Your task to perform on an android device: make emails show in primary in the gmail app Image 0: 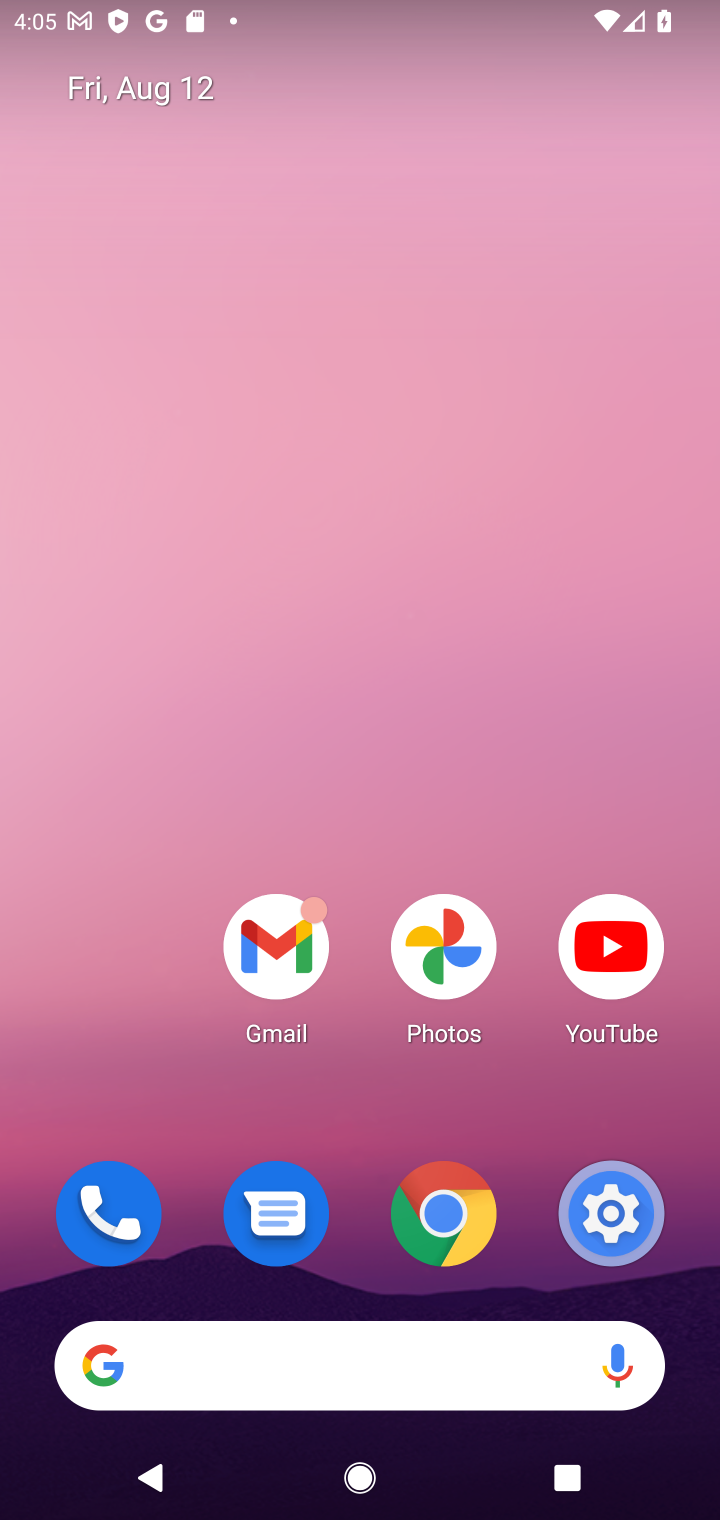
Step 0: drag from (375, 952) to (456, 187)
Your task to perform on an android device: make emails show in primary in the gmail app Image 1: 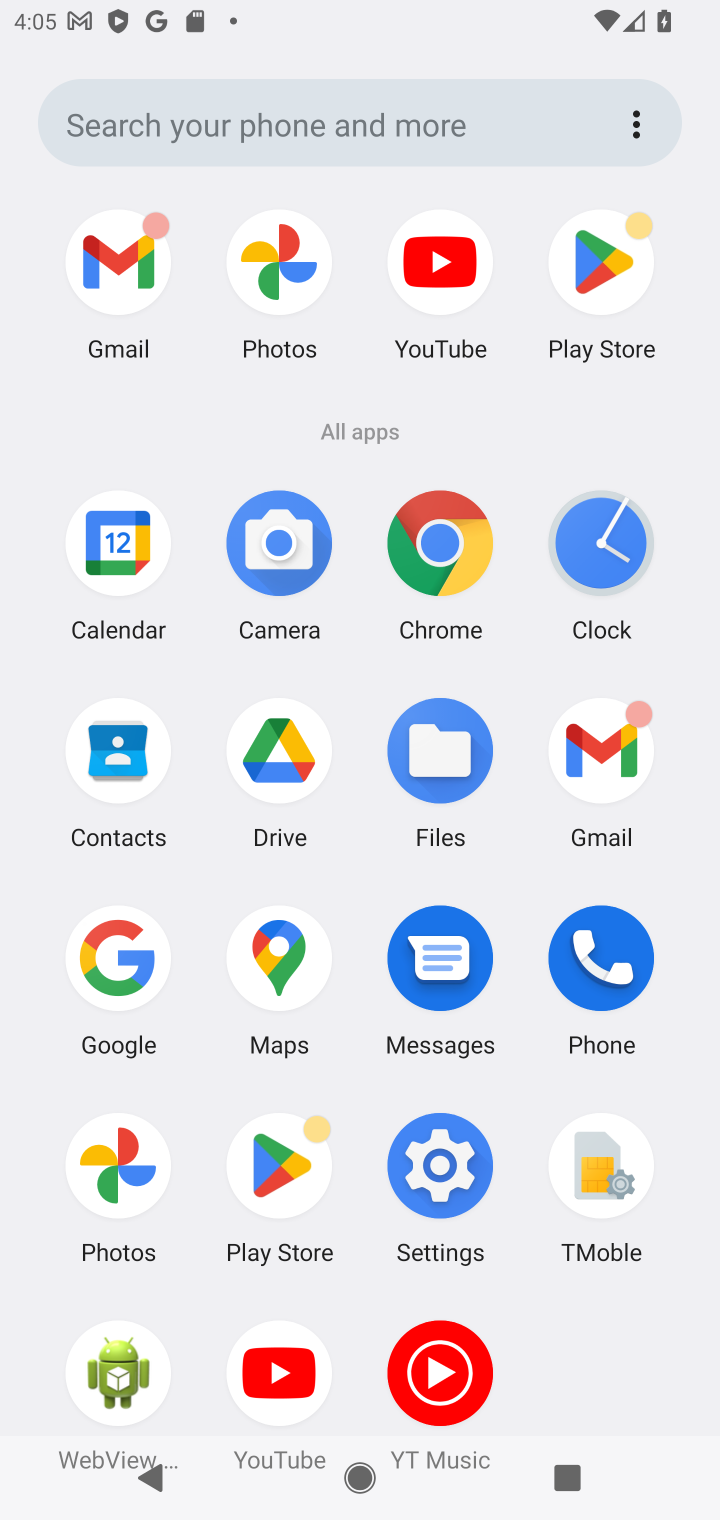
Step 1: click (604, 755)
Your task to perform on an android device: make emails show in primary in the gmail app Image 2: 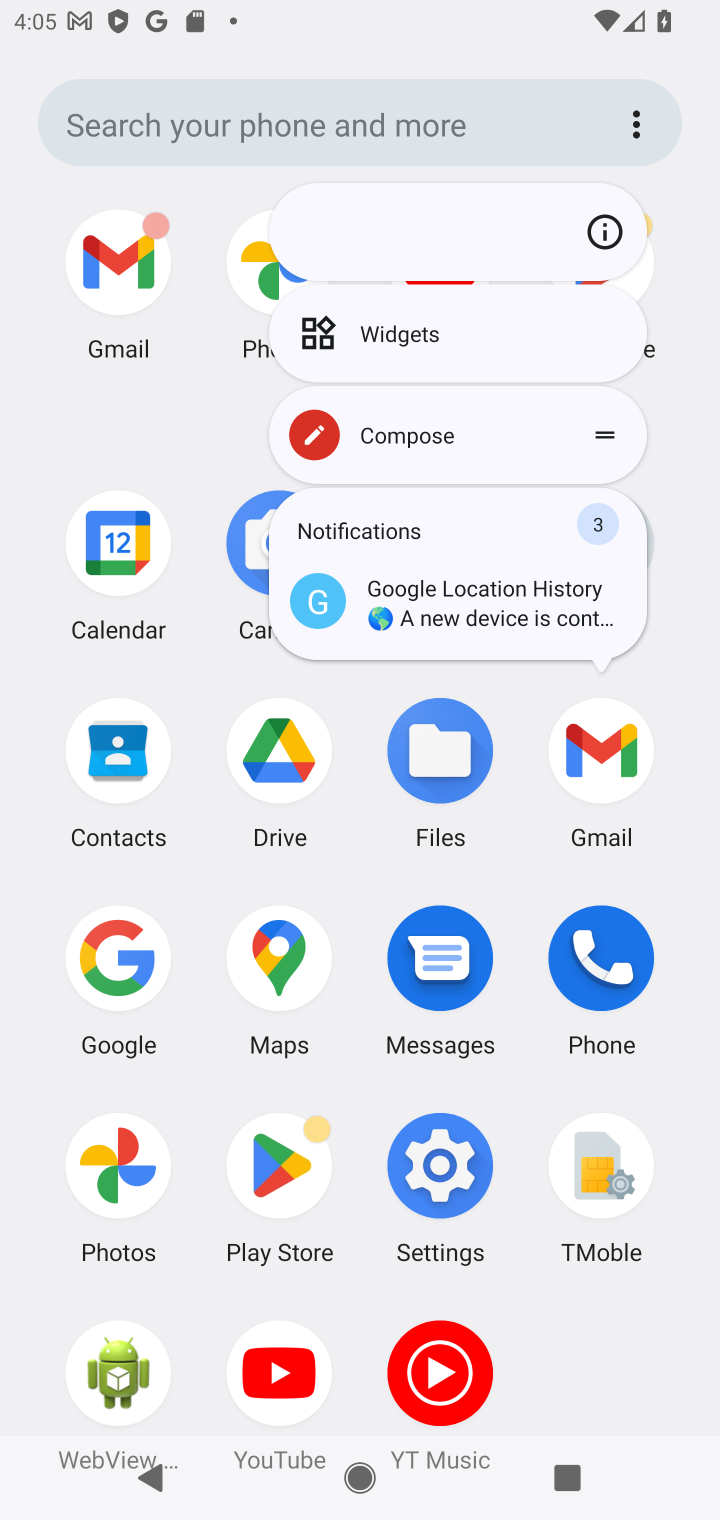
Step 2: click (584, 738)
Your task to perform on an android device: make emails show in primary in the gmail app Image 3: 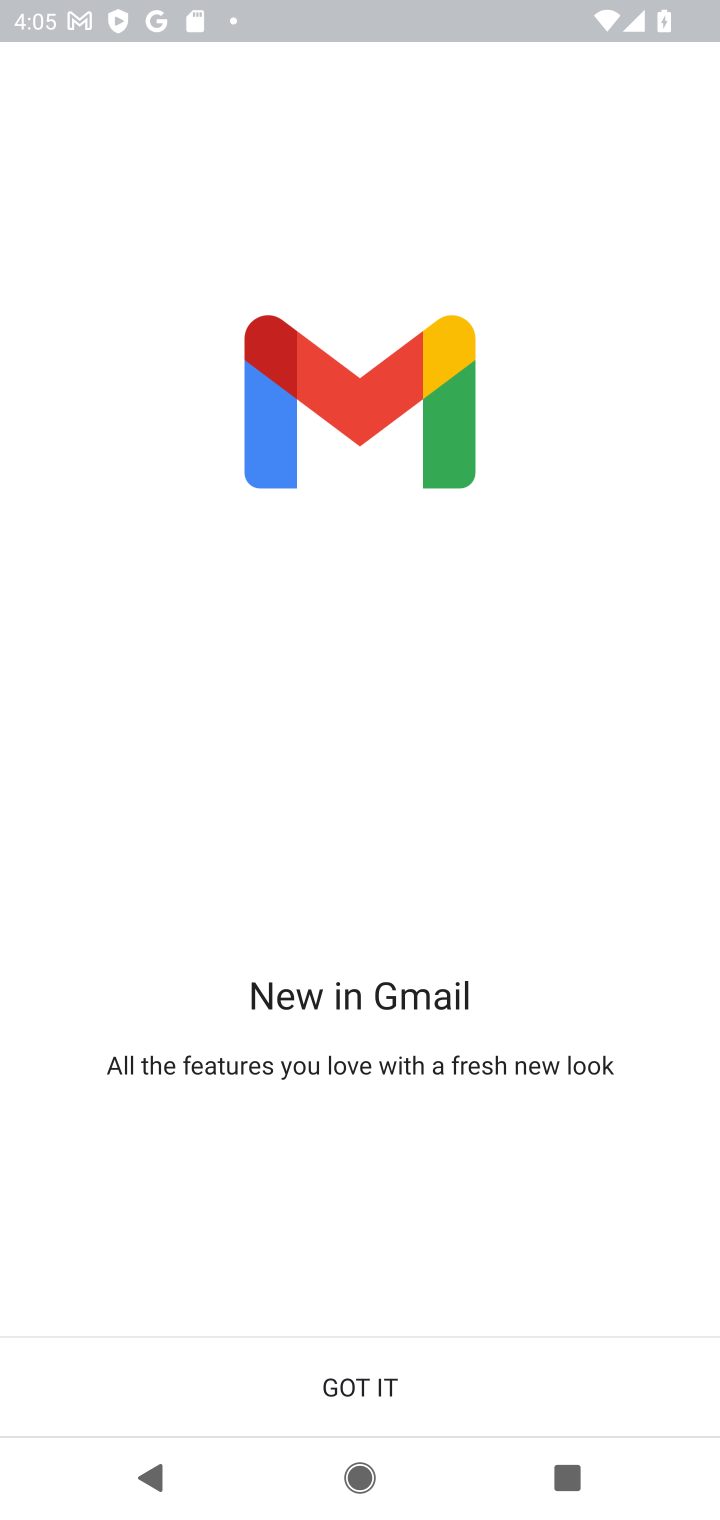
Step 3: click (371, 1424)
Your task to perform on an android device: make emails show in primary in the gmail app Image 4: 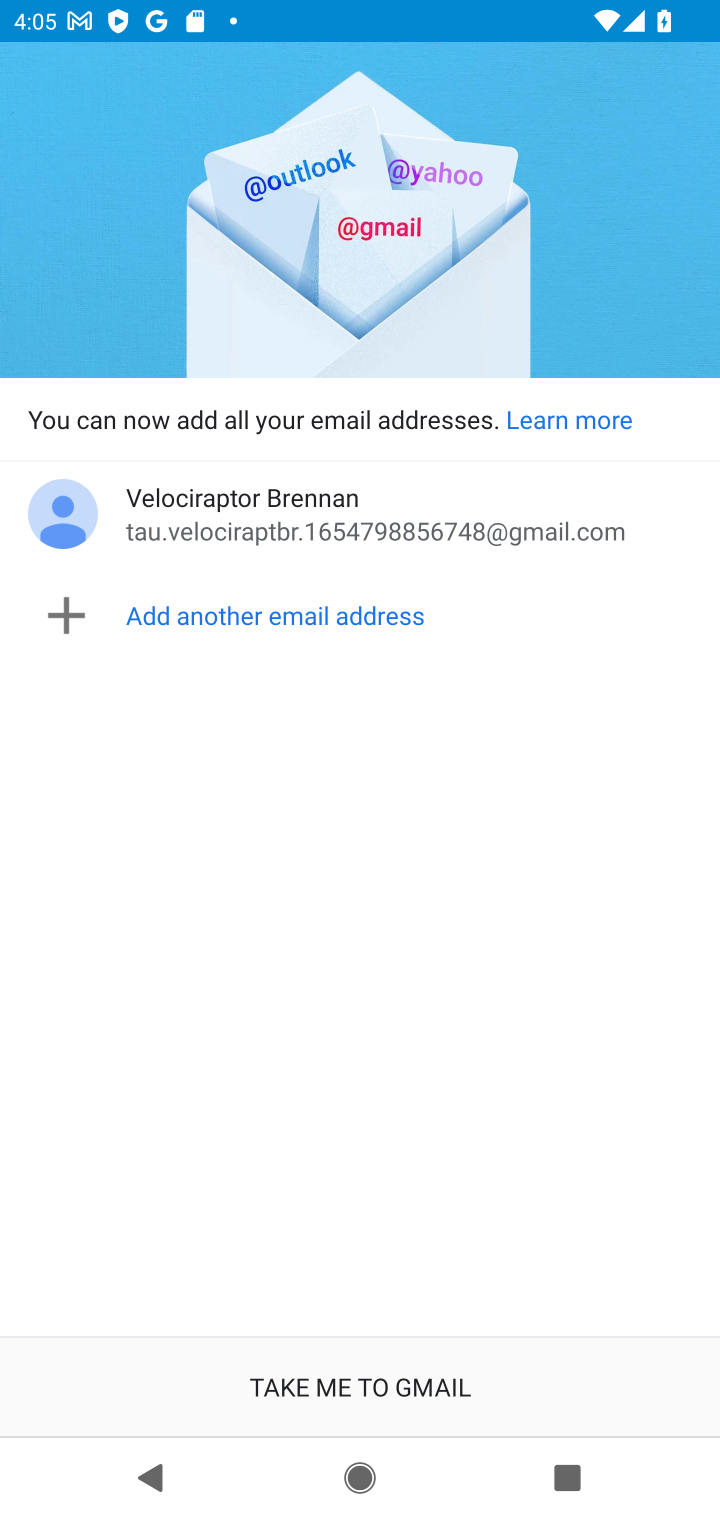
Step 4: click (378, 1393)
Your task to perform on an android device: make emails show in primary in the gmail app Image 5: 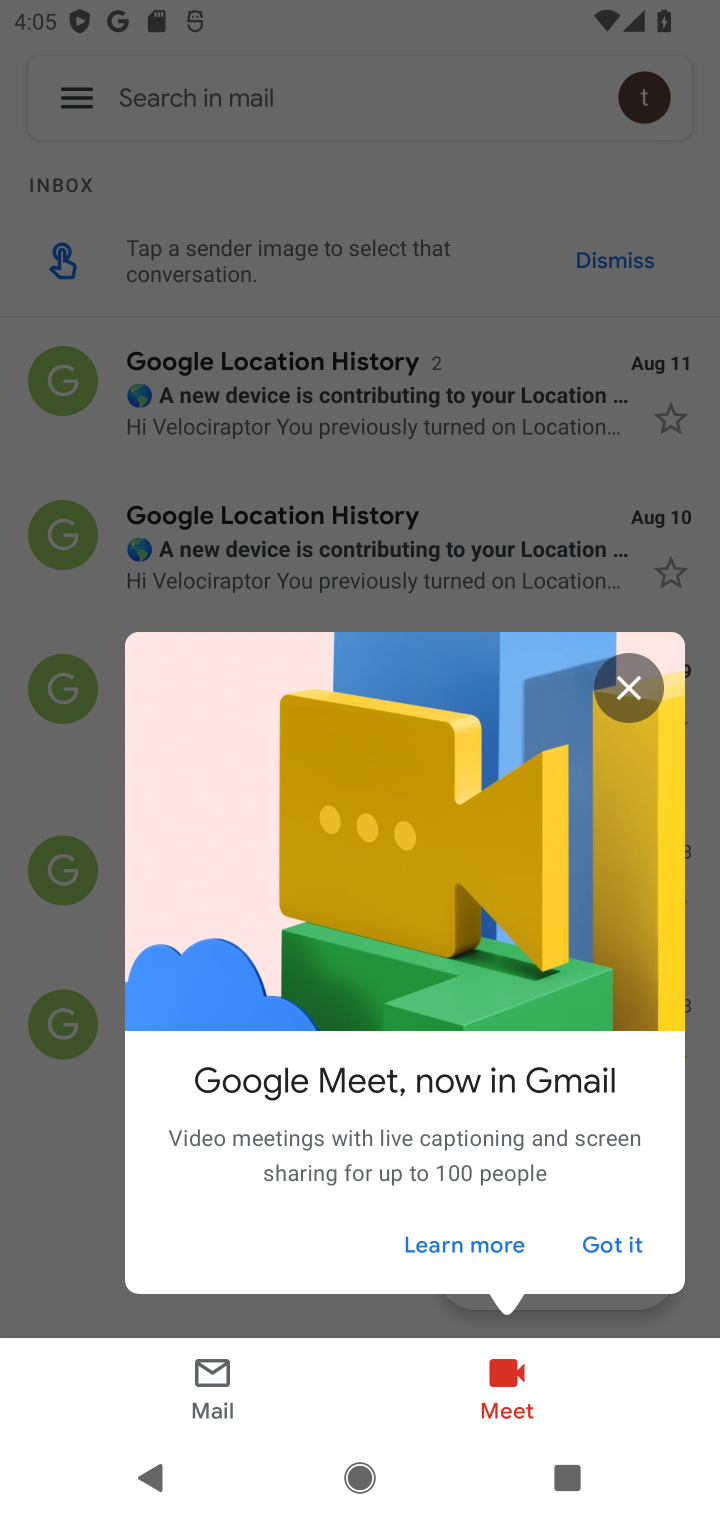
Step 5: click (231, 1369)
Your task to perform on an android device: make emails show in primary in the gmail app Image 6: 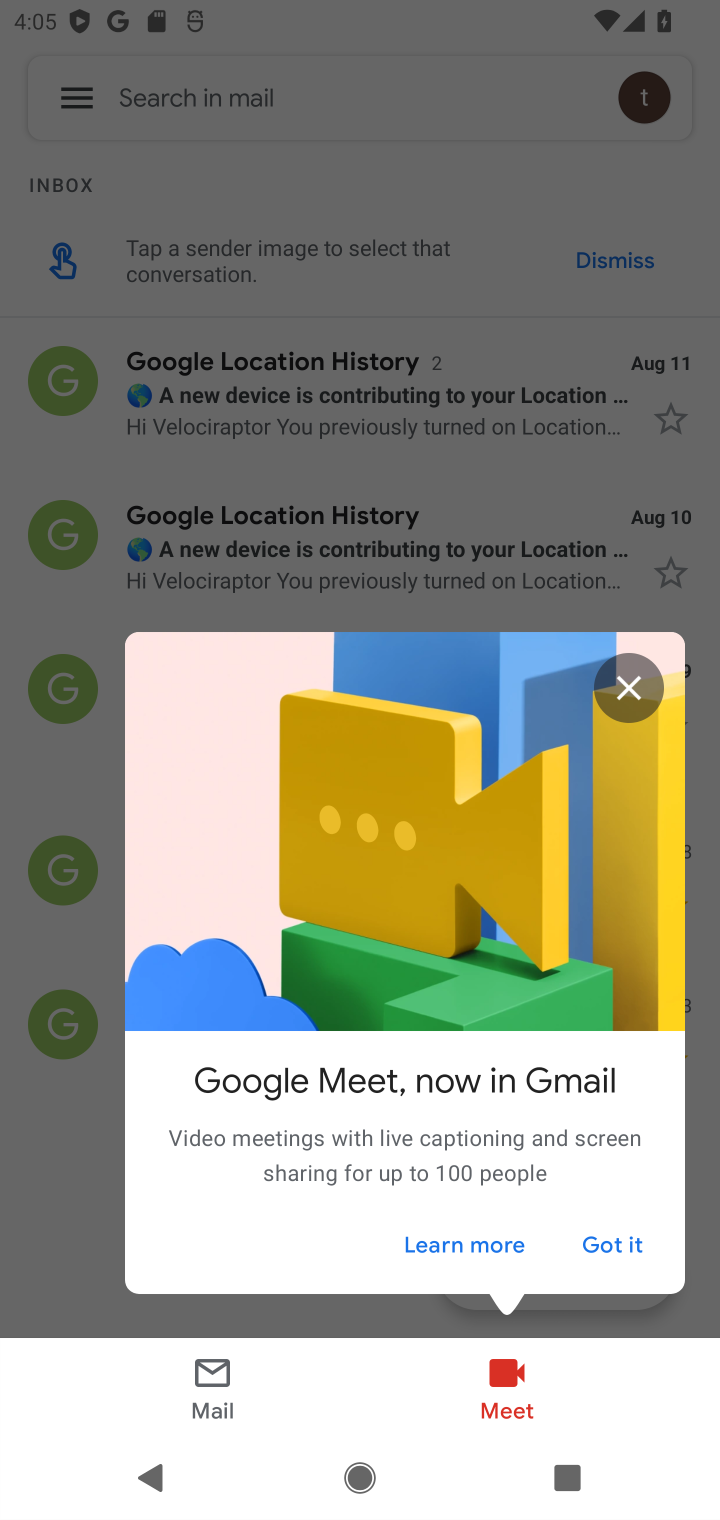
Step 6: click (203, 1432)
Your task to perform on an android device: make emails show in primary in the gmail app Image 7: 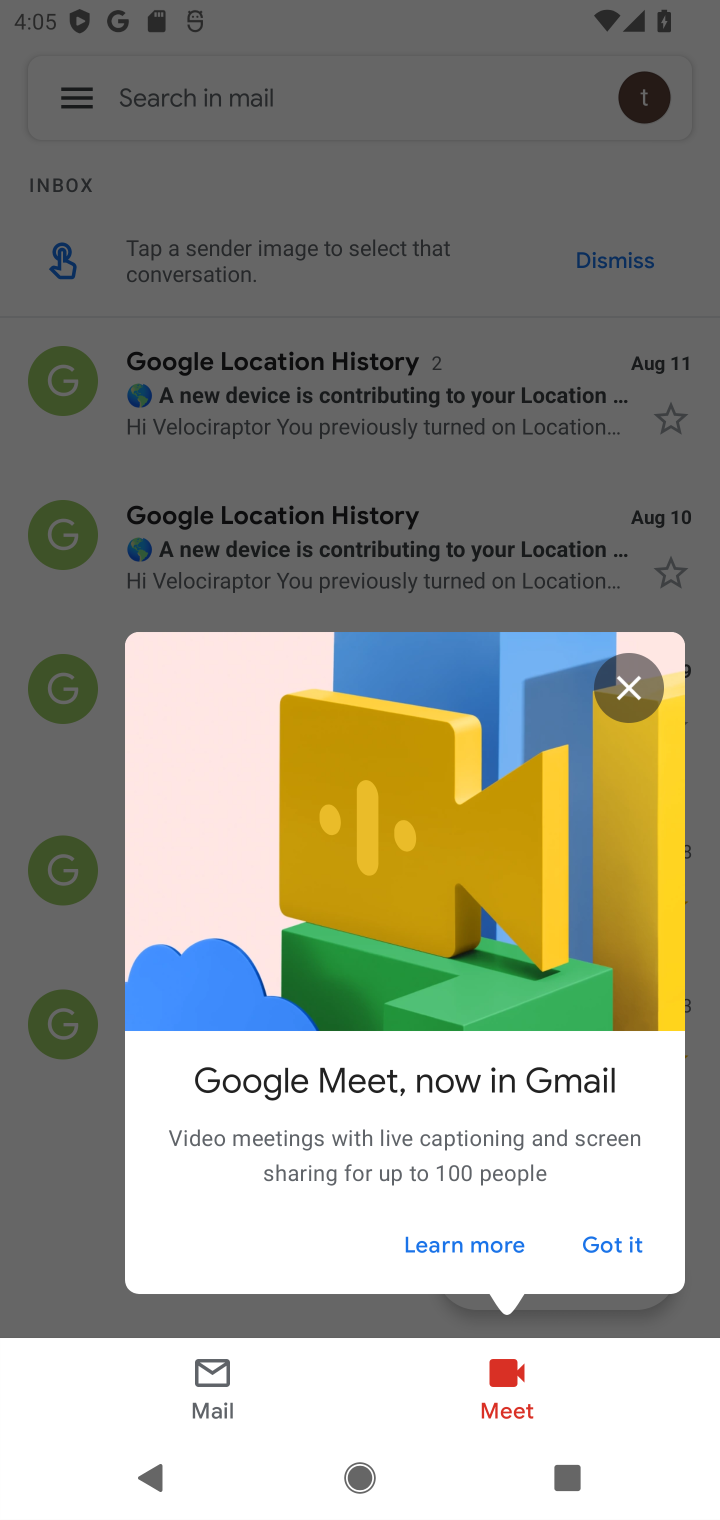
Step 7: click (621, 682)
Your task to perform on an android device: make emails show in primary in the gmail app Image 8: 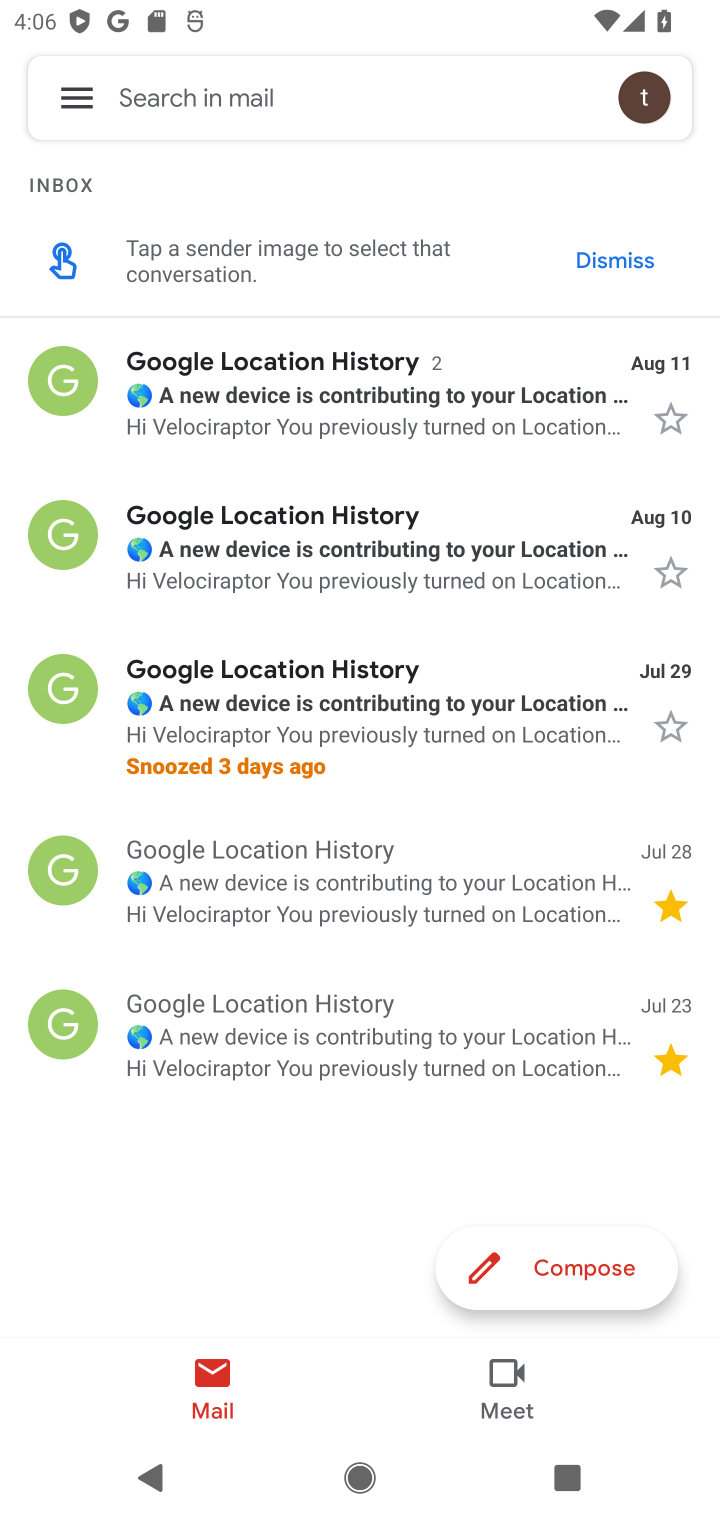
Step 8: click (208, 1401)
Your task to perform on an android device: make emails show in primary in the gmail app Image 9: 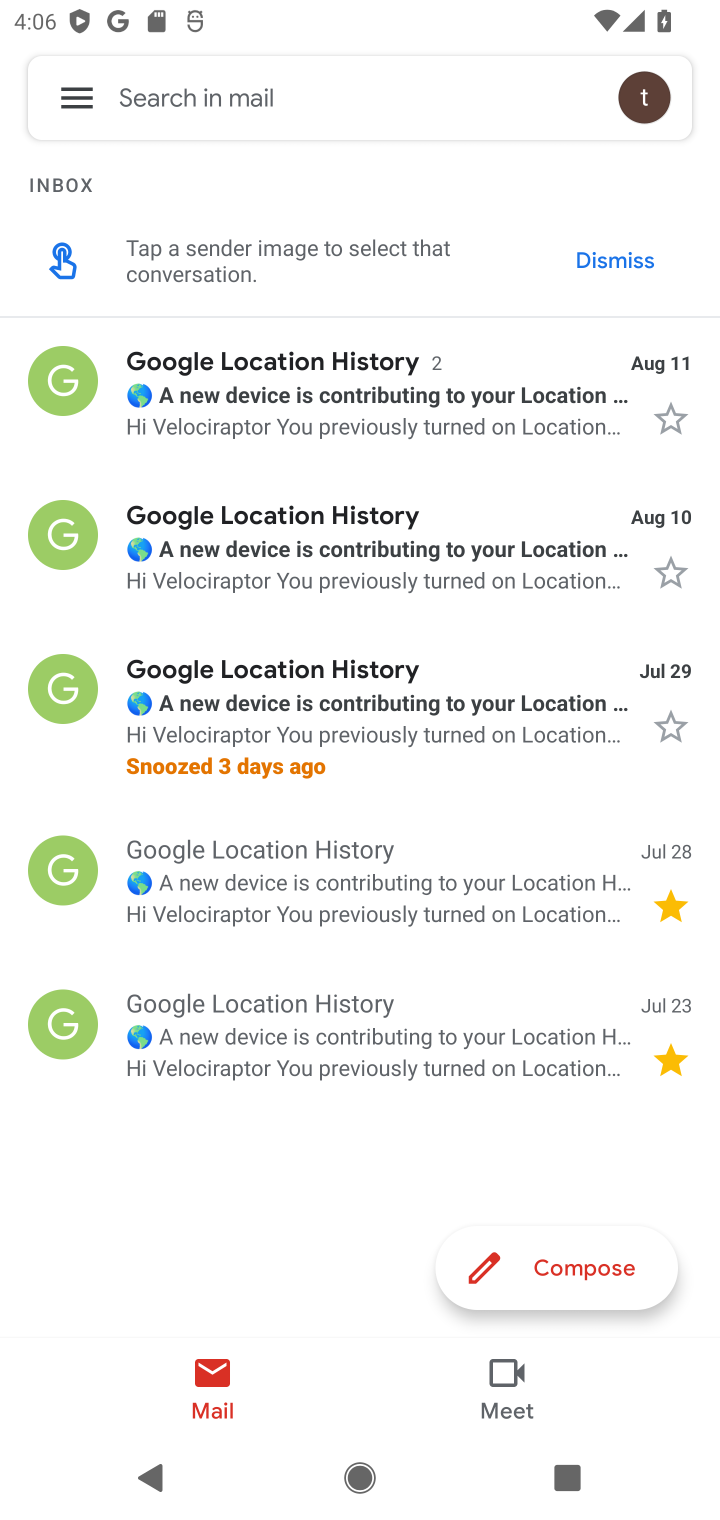
Step 9: click (71, 99)
Your task to perform on an android device: make emails show in primary in the gmail app Image 10: 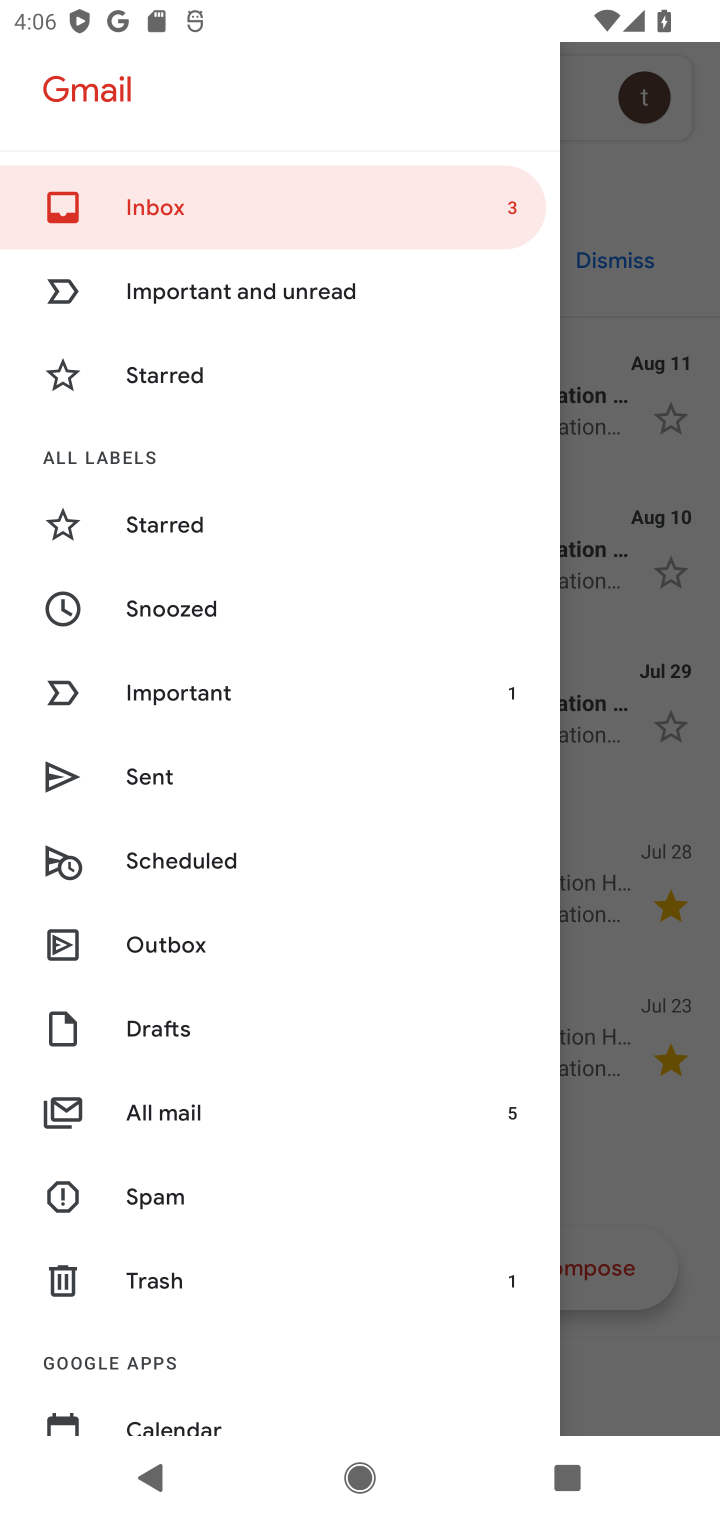
Step 10: drag from (216, 1357) to (356, 435)
Your task to perform on an android device: make emails show in primary in the gmail app Image 11: 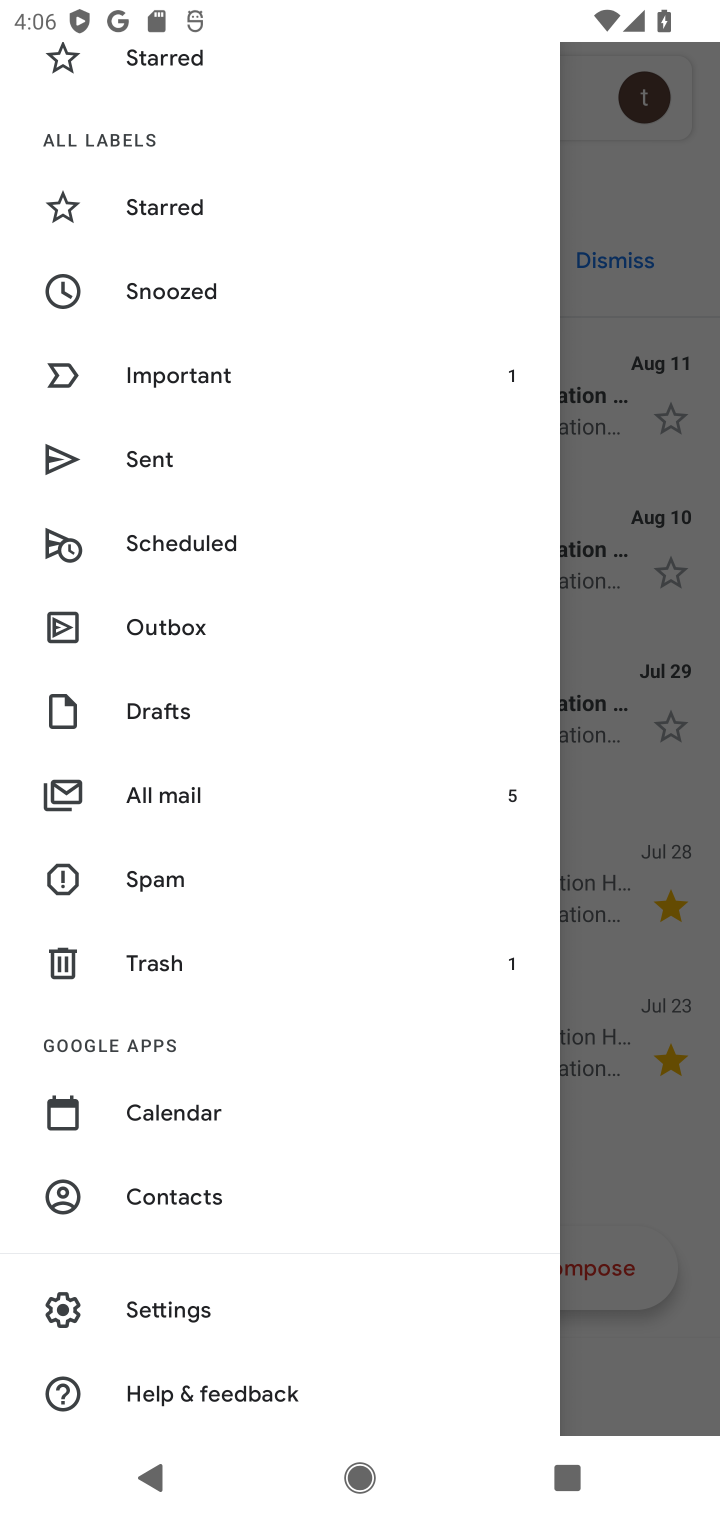
Step 11: click (153, 1312)
Your task to perform on an android device: make emails show in primary in the gmail app Image 12: 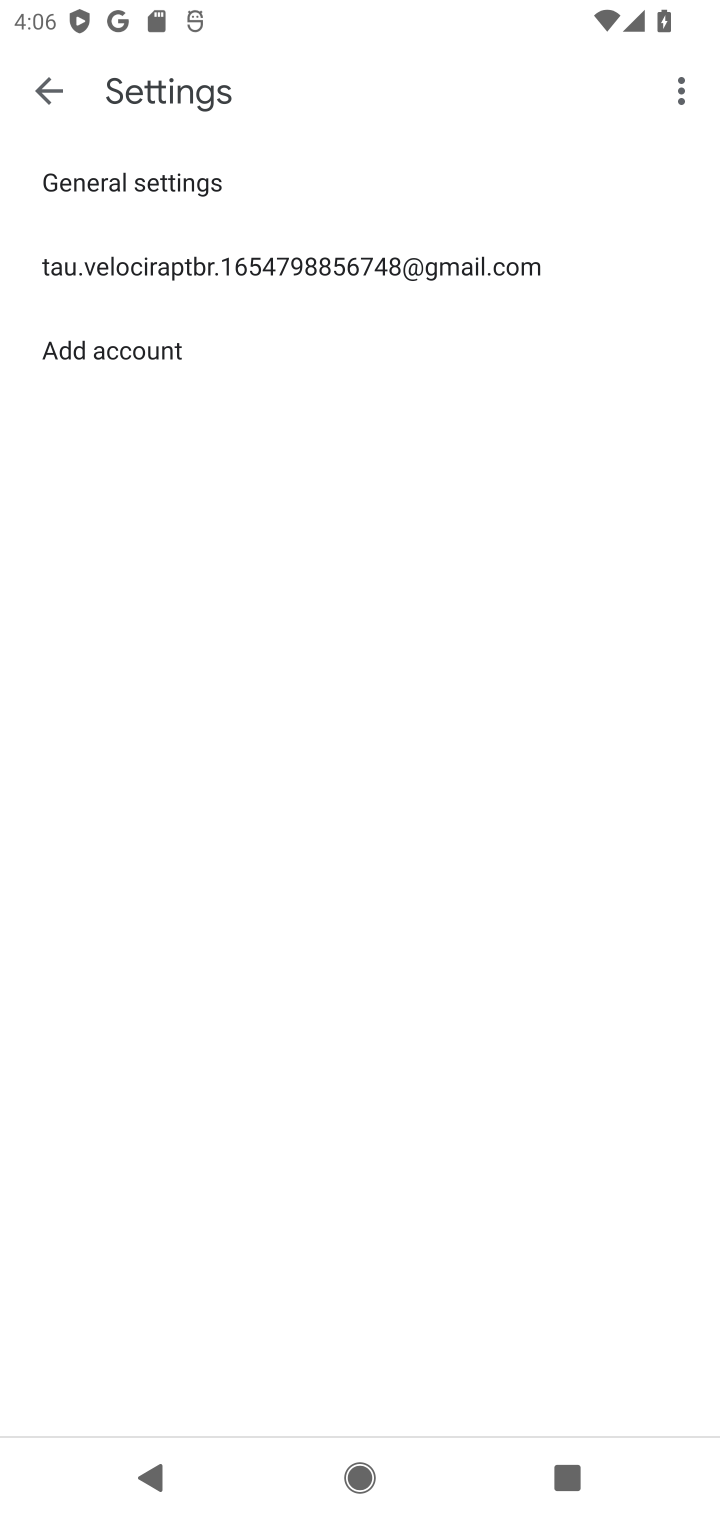
Step 12: click (261, 271)
Your task to perform on an android device: make emails show in primary in the gmail app Image 13: 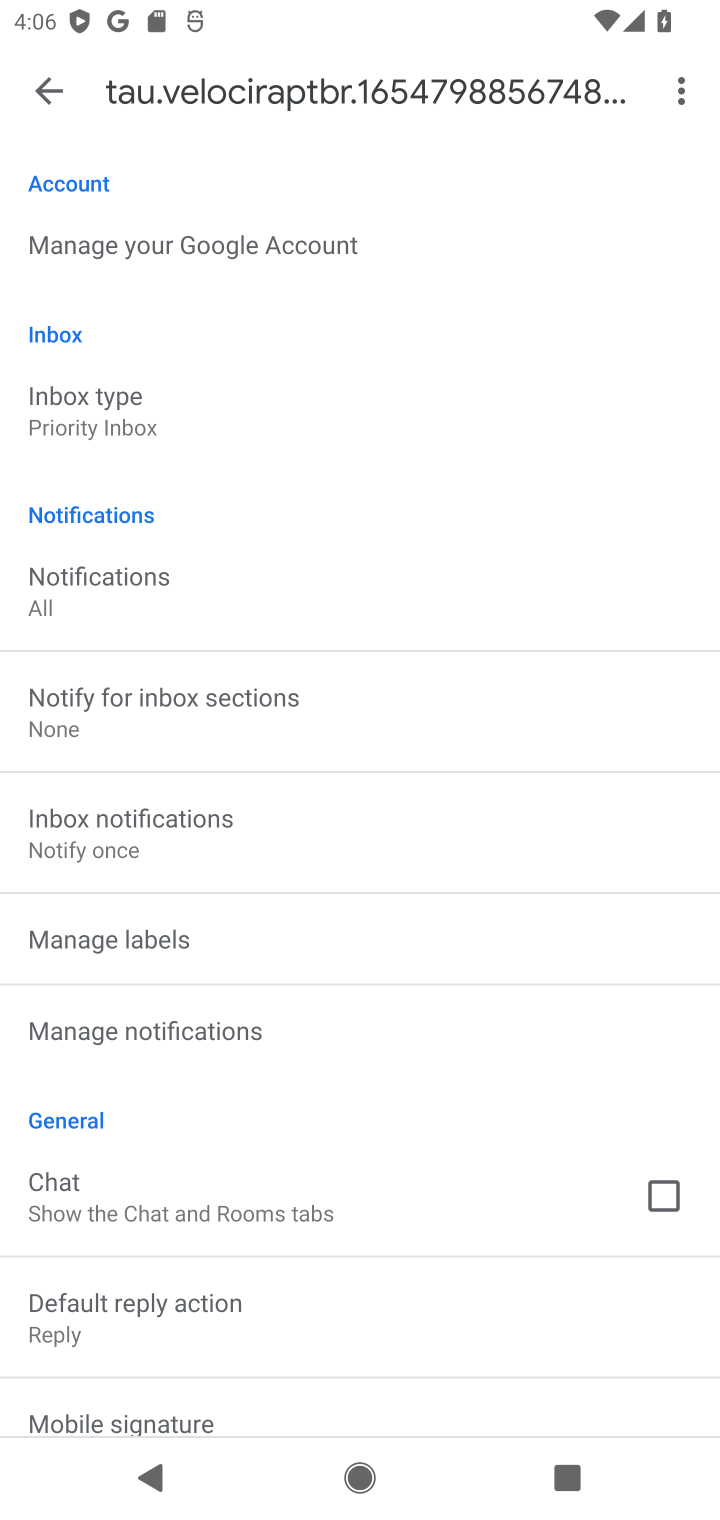
Step 13: click (128, 410)
Your task to perform on an android device: make emails show in primary in the gmail app Image 14: 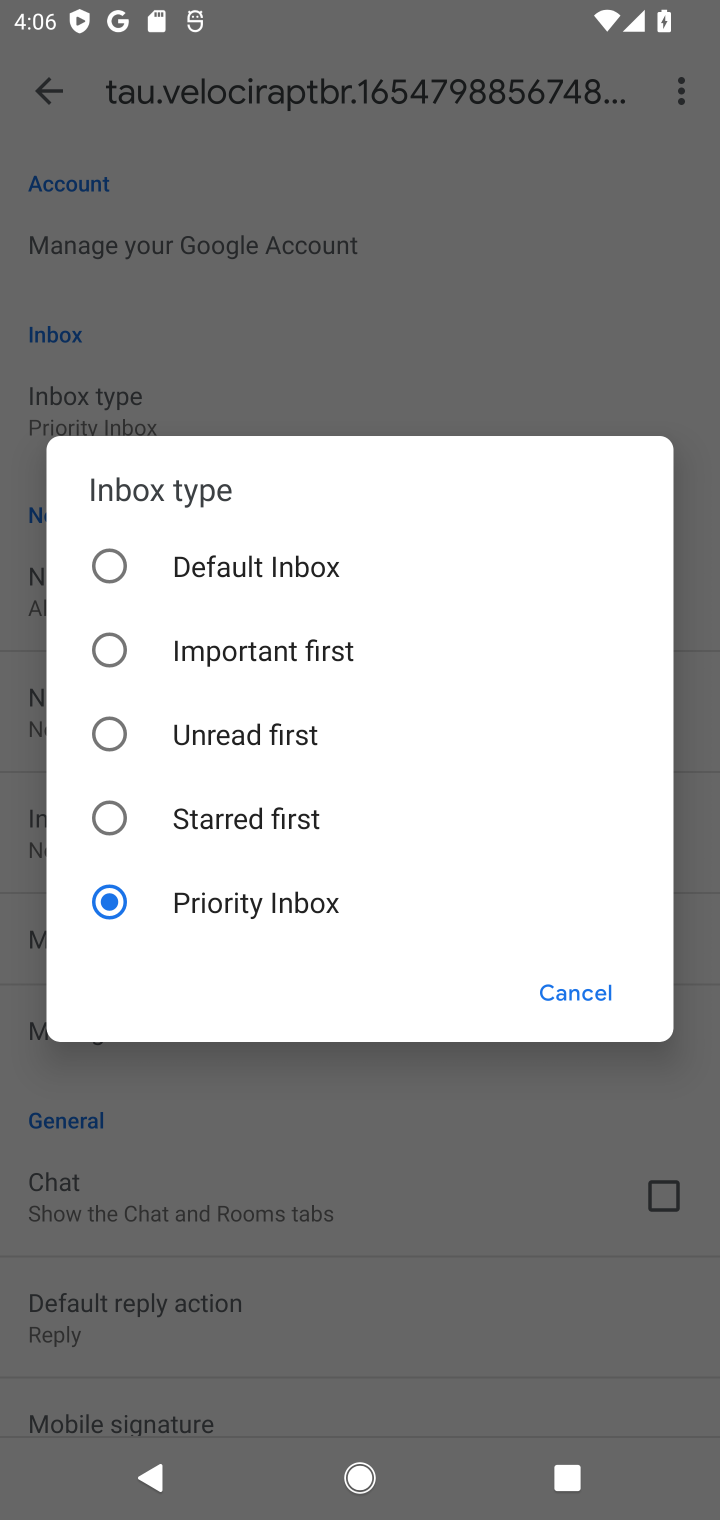
Step 14: task complete